Your task to perform on an android device: check android version Image 0: 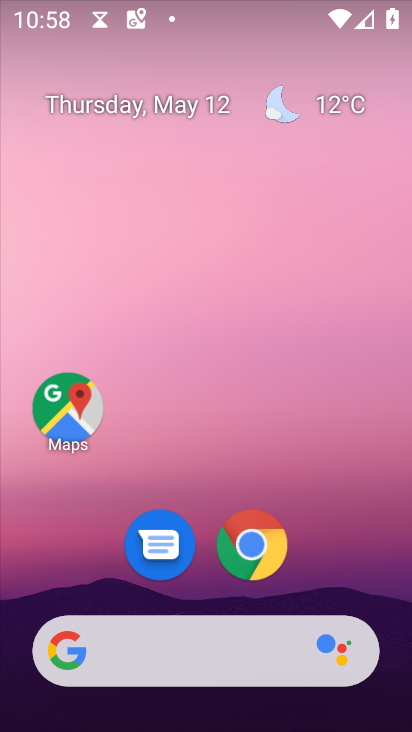
Step 0: drag from (205, 587) to (216, 65)
Your task to perform on an android device: check android version Image 1: 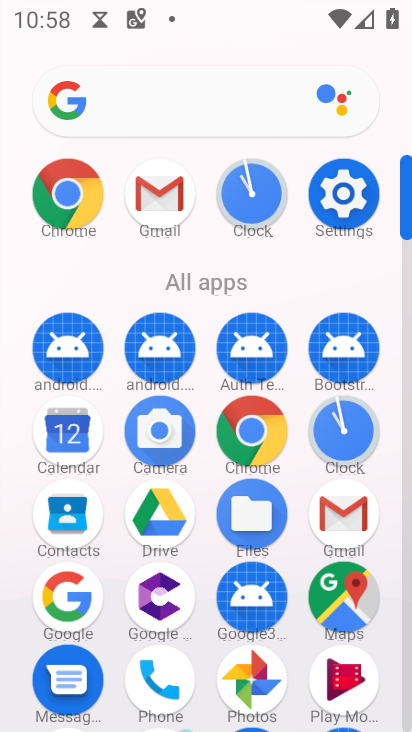
Step 1: click (346, 191)
Your task to perform on an android device: check android version Image 2: 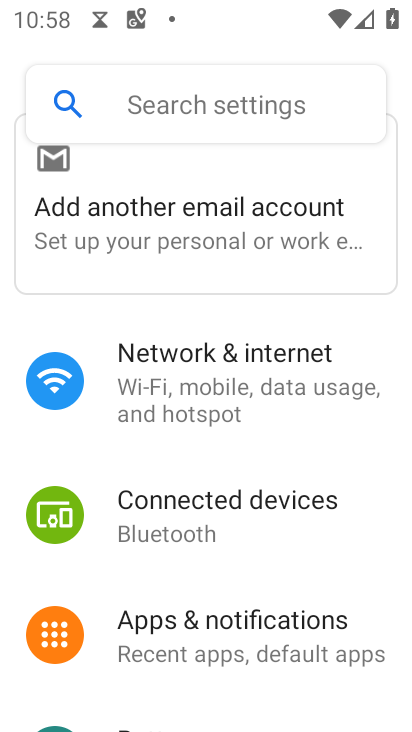
Step 2: drag from (104, 667) to (103, 123)
Your task to perform on an android device: check android version Image 3: 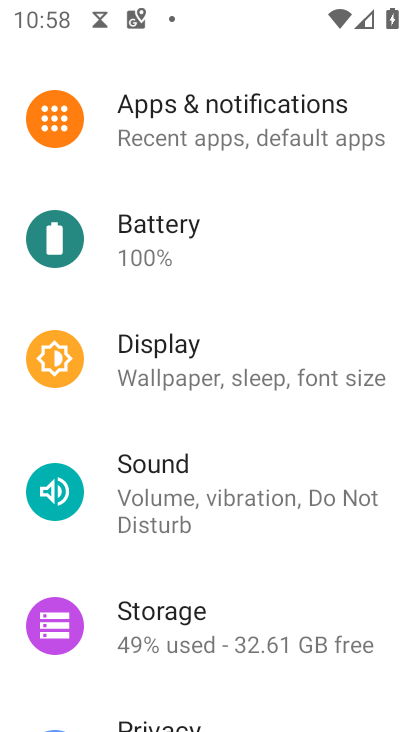
Step 3: drag from (99, 668) to (94, 133)
Your task to perform on an android device: check android version Image 4: 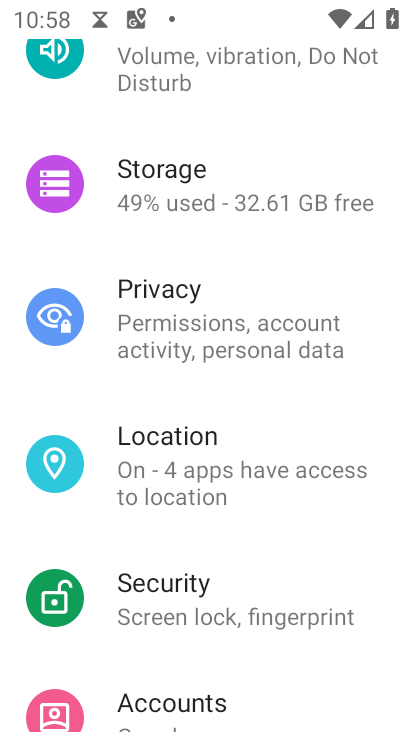
Step 4: drag from (105, 668) to (95, 154)
Your task to perform on an android device: check android version Image 5: 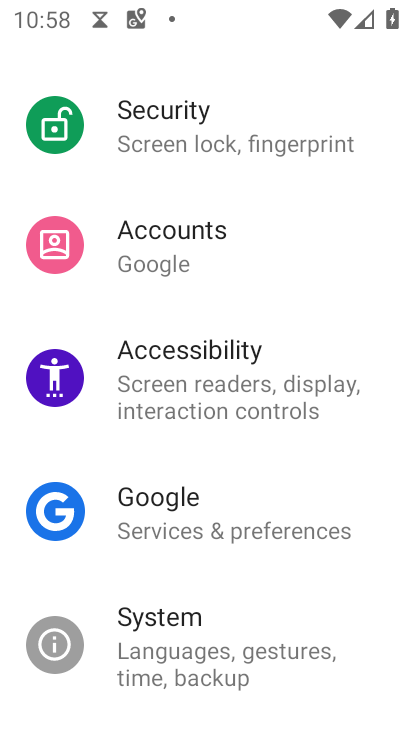
Step 5: drag from (99, 672) to (95, 136)
Your task to perform on an android device: check android version Image 6: 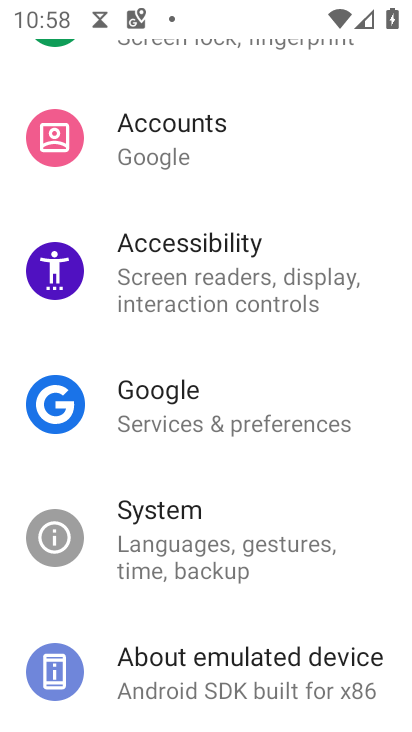
Step 6: click (163, 673)
Your task to perform on an android device: check android version Image 7: 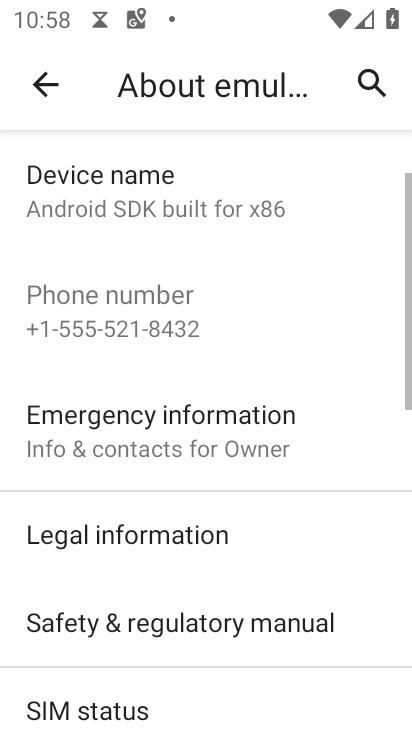
Step 7: drag from (168, 664) to (163, 227)
Your task to perform on an android device: check android version Image 8: 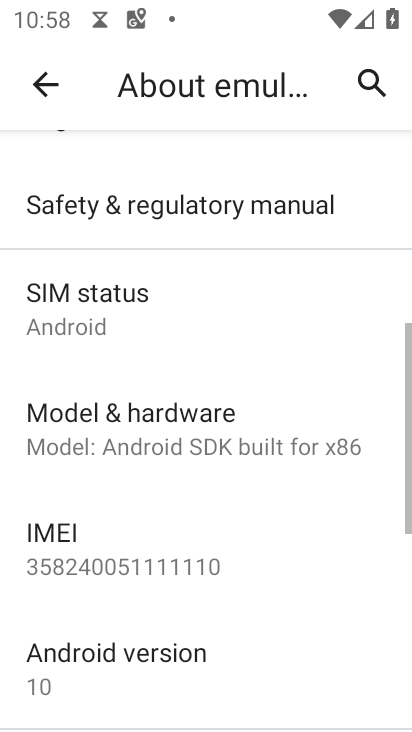
Step 8: click (121, 679)
Your task to perform on an android device: check android version Image 9: 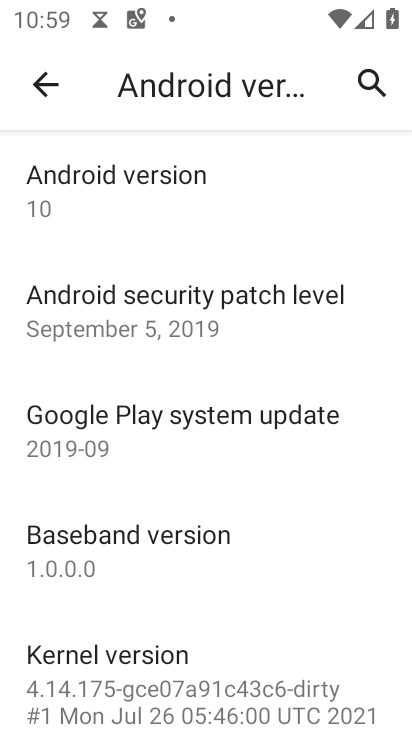
Step 9: task complete